Your task to perform on an android device: change alarm snooze length Image 0: 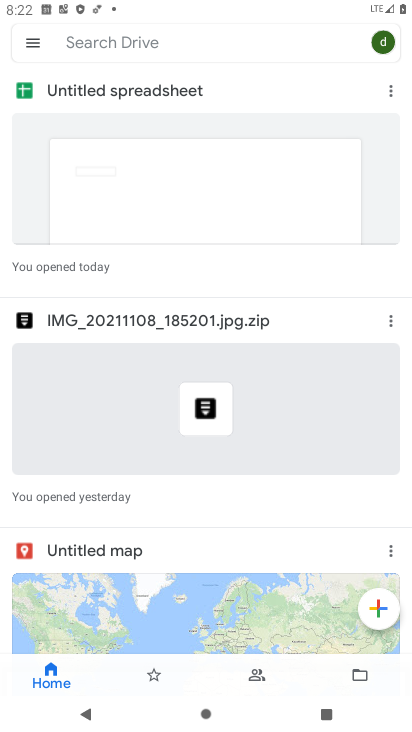
Step 0: press home button
Your task to perform on an android device: change alarm snooze length Image 1: 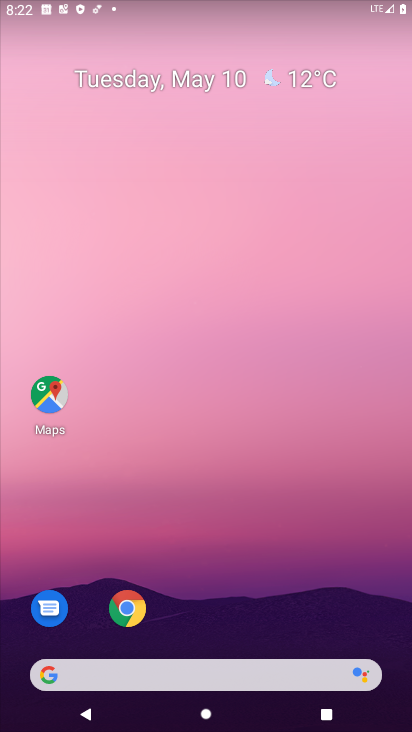
Step 1: drag from (163, 675) to (284, 195)
Your task to perform on an android device: change alarm snooze length Image 2: 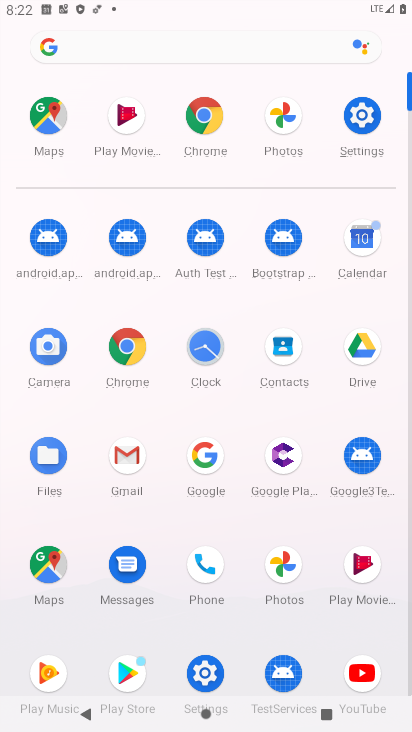
Step 2: click (208, 354)
Your task to perform on an android device: change alarm snooze length Image 3: 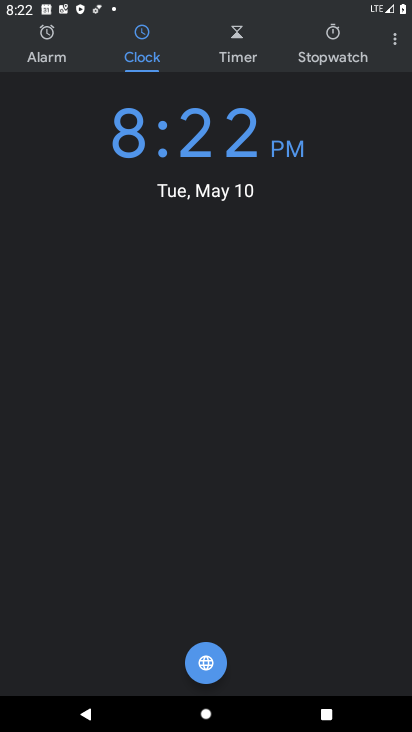
Step 3: click (396, 43)
Your task to perform on an android device: change alarm snooze length Image 4: 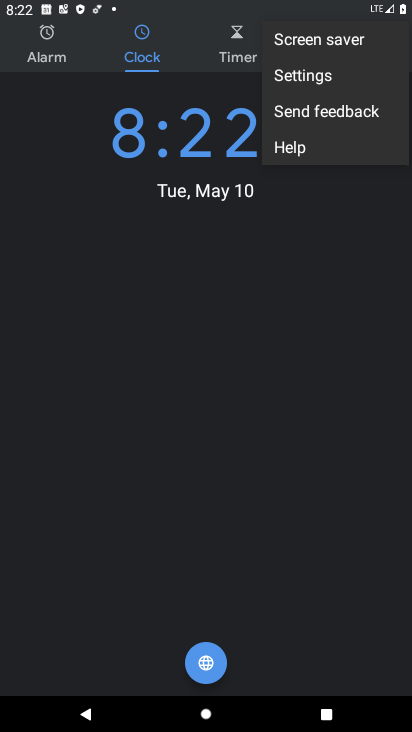
Step 4: click (300, 82)
Your task to perform on an android device: change alarm snooze length Image 5: 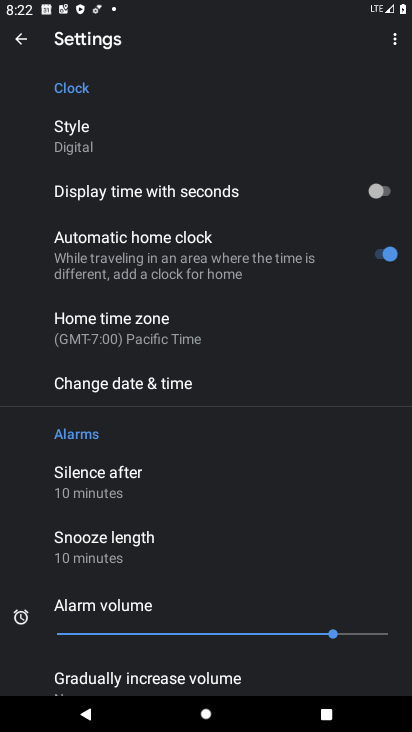
Step 5: drag from (189, 561) to (315, 260)
Your task to perform on an android device: change alarm snooze length Image 6: 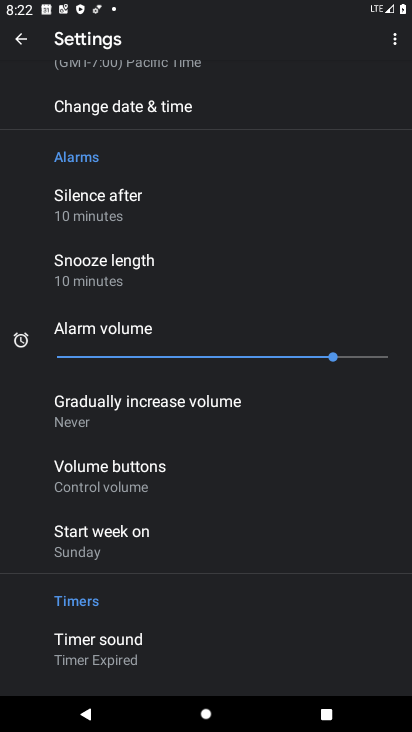
Step 6: click (97, 253)
Your task to perform on an android device: change alarm snooze length Image 7: 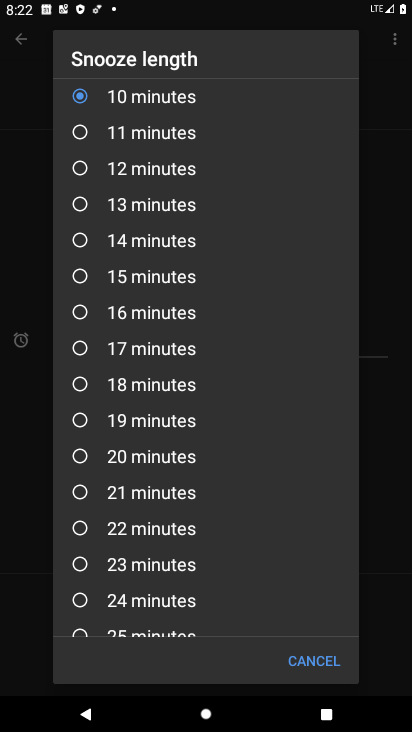
Step 7: click (84, 166)
Your task to perform on an android device: change alarm snooze length Image 8: 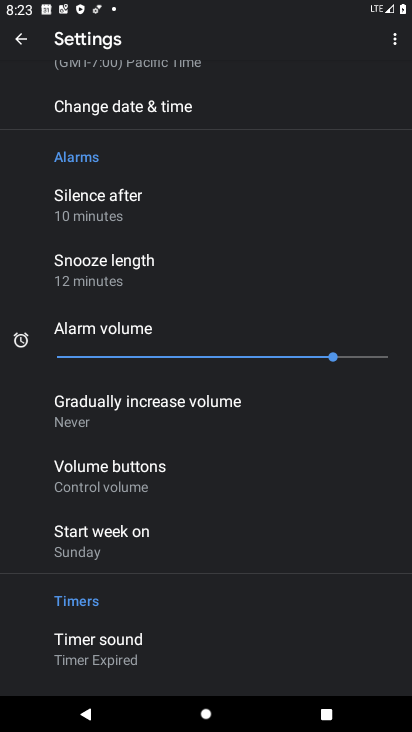
Step 8: task complete